Your task to perform on an android device: toggle pop-ups in chrome Image 0: 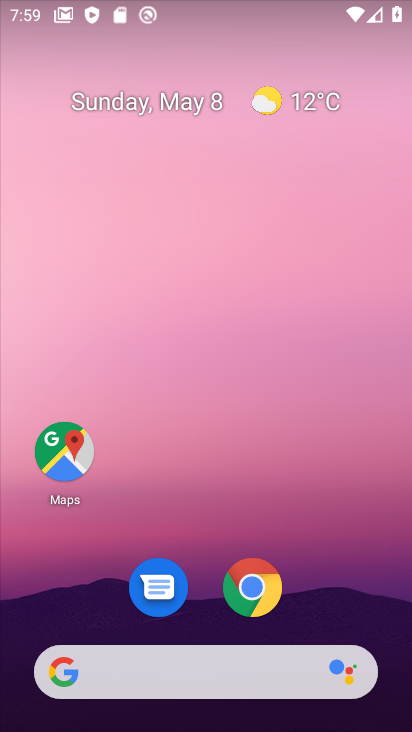
Step 0: click (255, 588)
Your task to perform on an android device: toggle pop-ups in chrome Image 1: 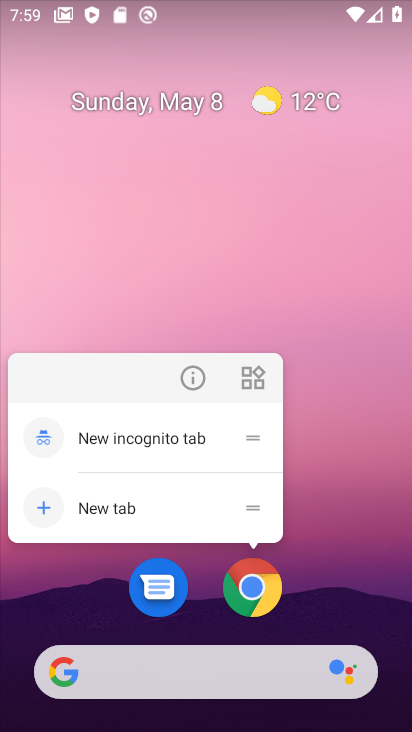
Step 1: click (261, 585)
Your task to perform on an android device: toggle pop-ups in chrome Image 2: 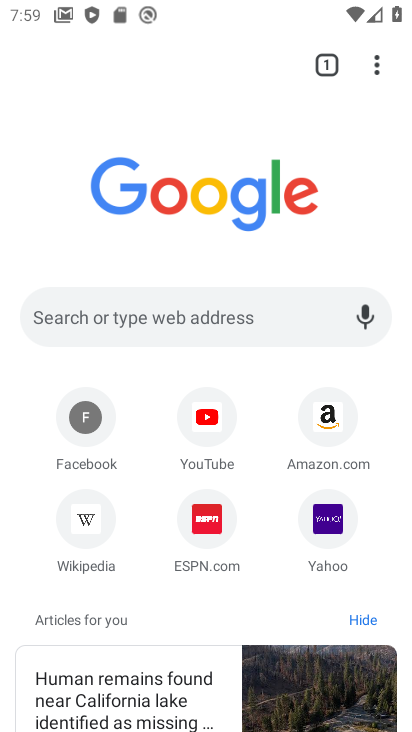
Step 2: click (389, 71)
Your task to perform on an android device: toggle pop-ups in chrome Image 3: 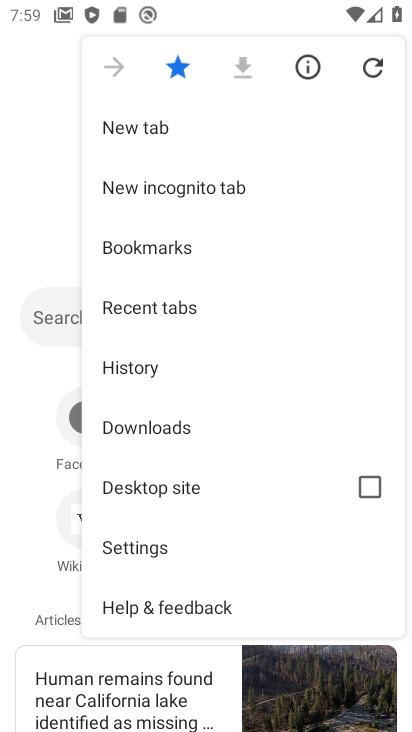
Step 3: drag from (215, 507) to (273, 47)
Your task to perform on an android device: toggle pop-ups in chrome Image 4: 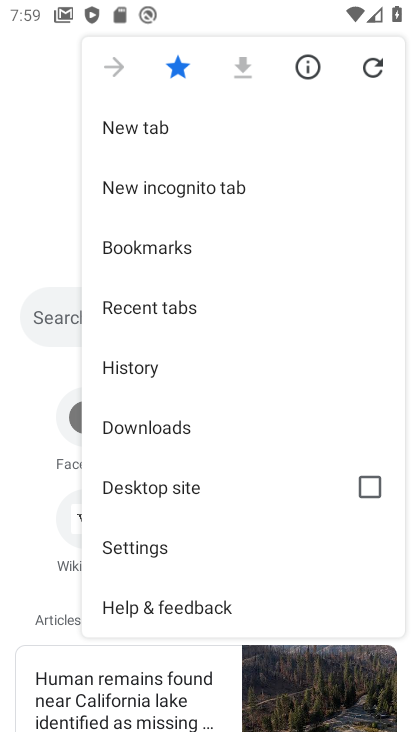
Step 4: click (195, 548)
Your task to perform on an android device: toggle pop-ups in chrome Image 5: 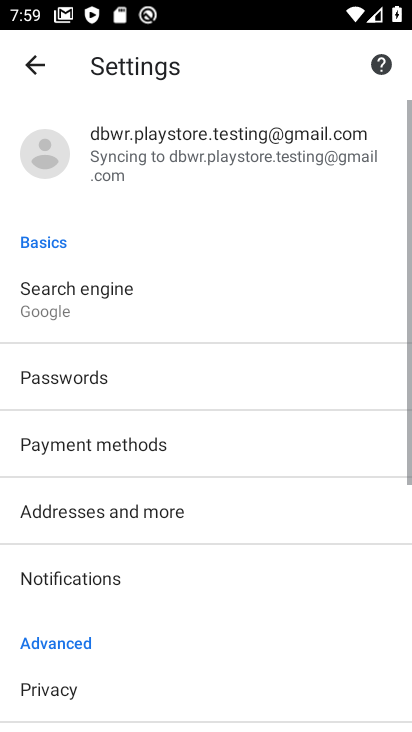
Step 5: drag from (202, 602) to (258, 91)
Your task to perform on an android device: toggle pop-ups in chrome Image 6: 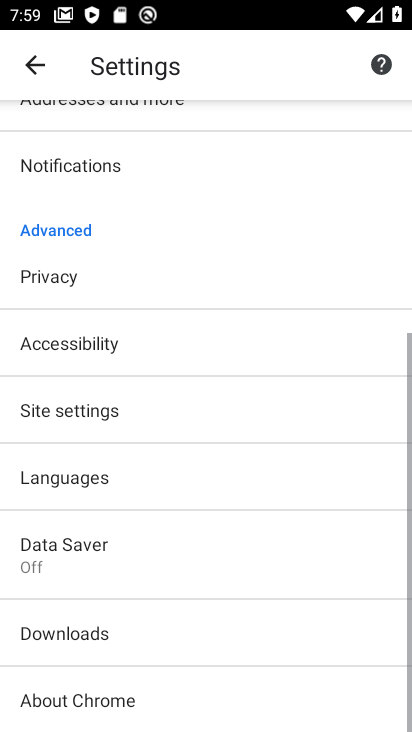
Step 6: drag from (158, 558) to (217, 173)
Your task to perform on an android device: toggle pop-ups in chrome Image 7: 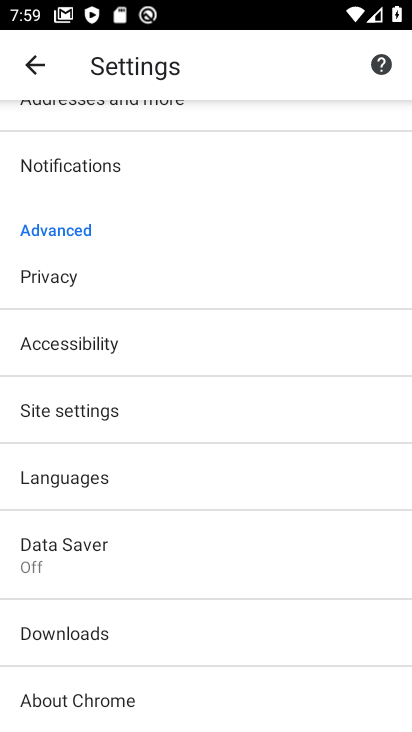
Step 7: click (178, 413)
Your task to perform on an android device: toggle pop-ups in chrome Image 8: 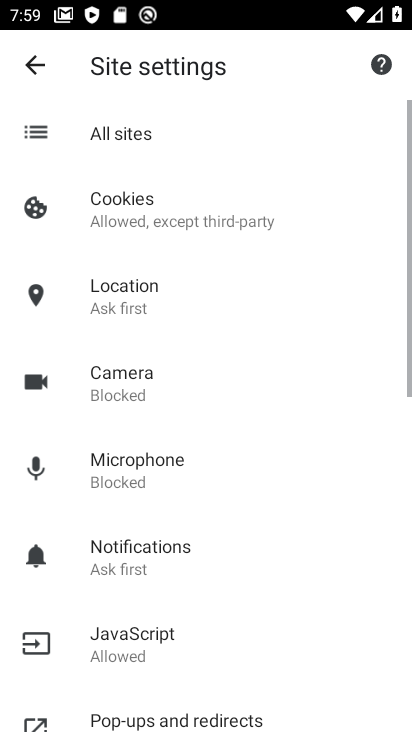
Step 8: drag from (240, 506) to (275, 196)
Your task to perform on an android device: toggle pop-ups in chrome Image 9: 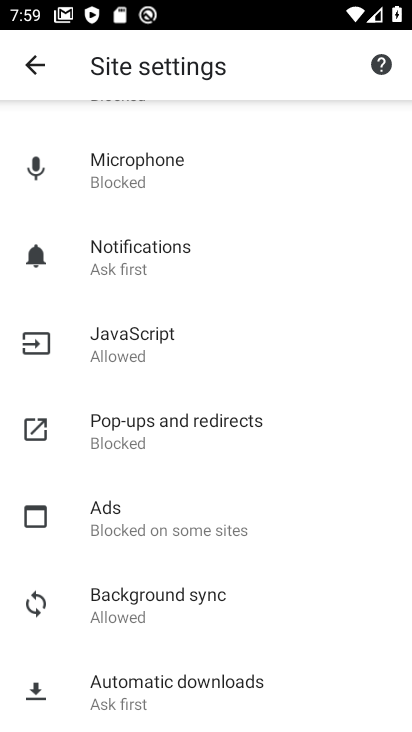
Step 9: drag from (227, 521) to (276, 268)
Your task to perform on an android device: toggle pop-ups in chrome Image 10: 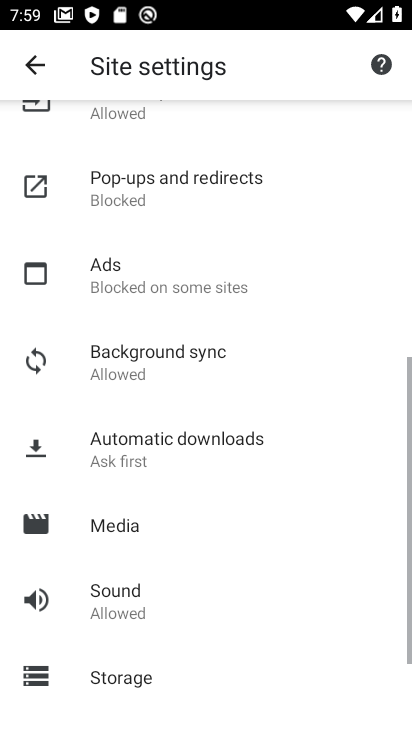
Step 10: click (226, 205)
Your task to perform on an android device: toggle pop-ups in chrome Image 11: 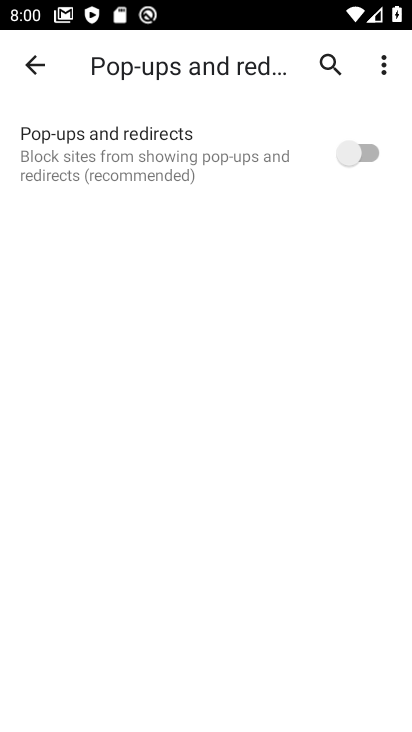
Step 11: click (368, 170)
Your task to perform on an android device: toggle pop-ups in chrome Image 12: 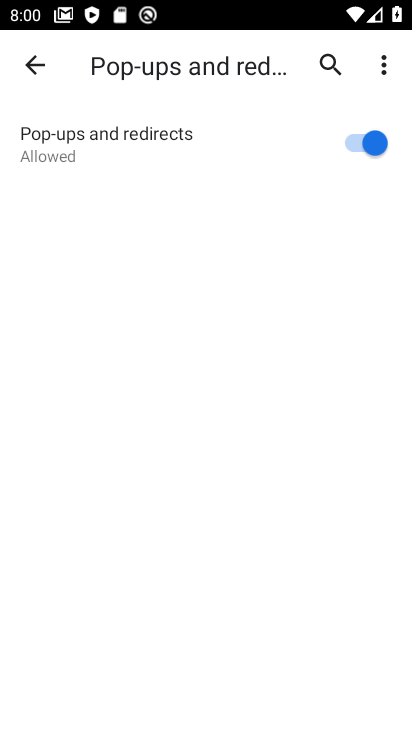
Step 12: task complete